Your task to perform on an android device: turn on sleep mode Image 0: 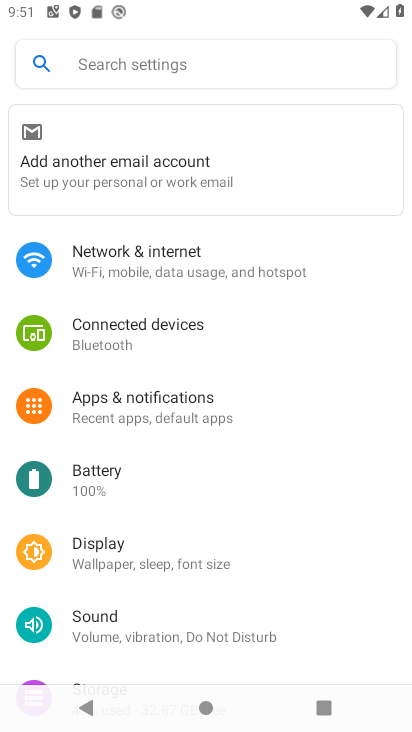
Step 0: press home button
Your task to perform on an android device: turn on sleep mode Image 1: 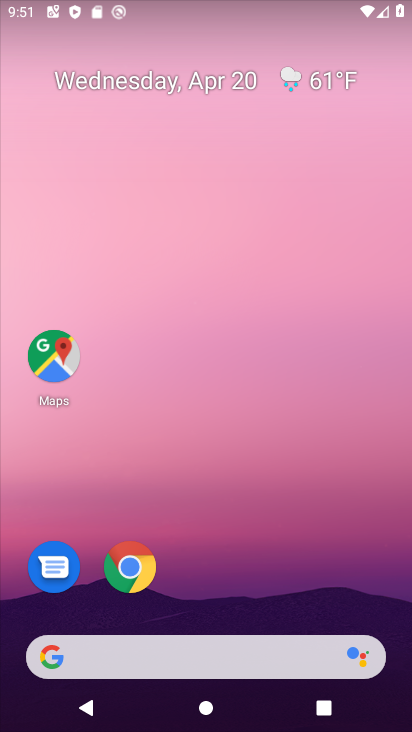
Step 1: drag from (226, 593) to (189, 171)
Your task to perform on an android device: turn on sleep mode Image 2: 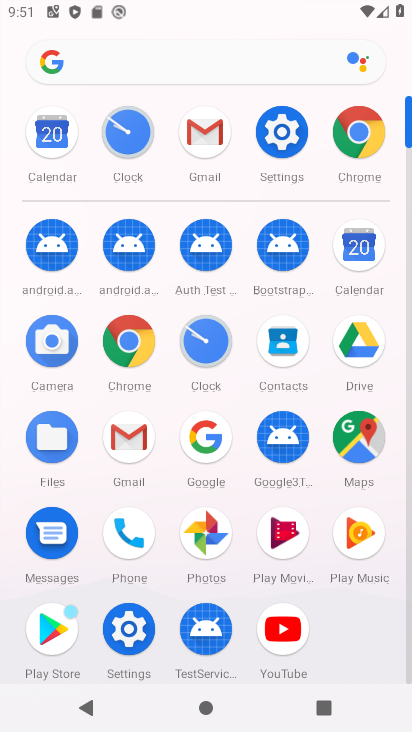
Step 2: click (275, 127)
Your task to perform on an android device: turn on sleep mode Image 3: 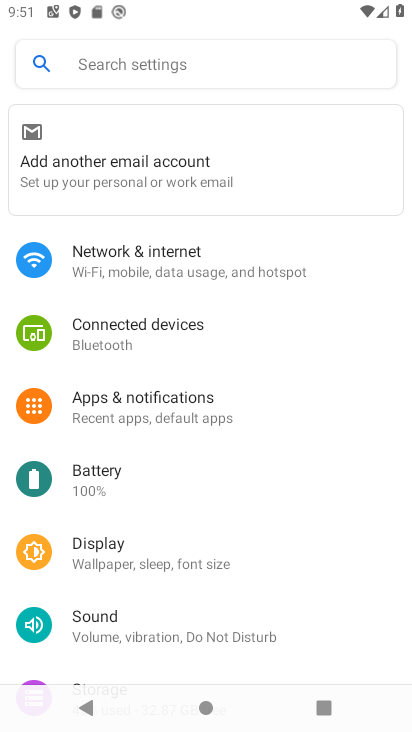
Step 3: click (109, 563)
Your task to perform on an android device: turn on sleep mode Image 4: 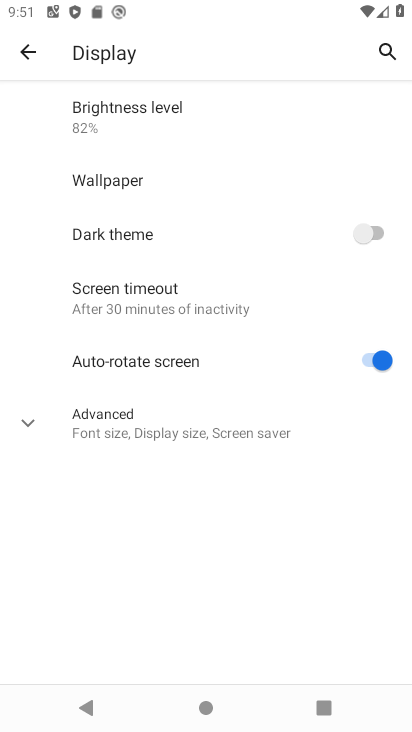
Step 4: click (126, 298)
Your task to perform on an android device: turn on sleep mode Image 5: 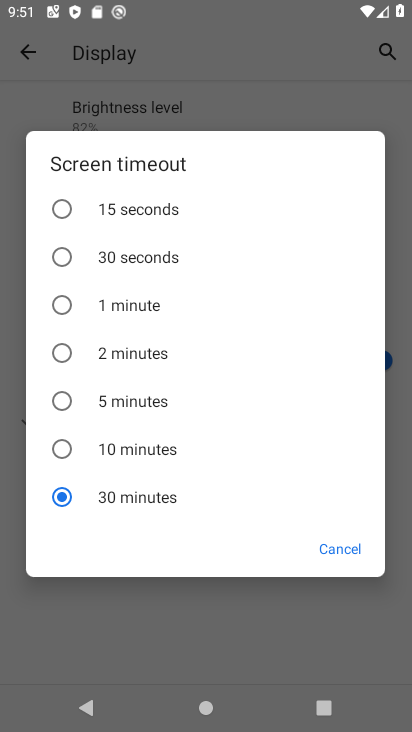
Step 5: click (120, 260)
Your task to perform on an android device: turn on sleep mode Image 6: 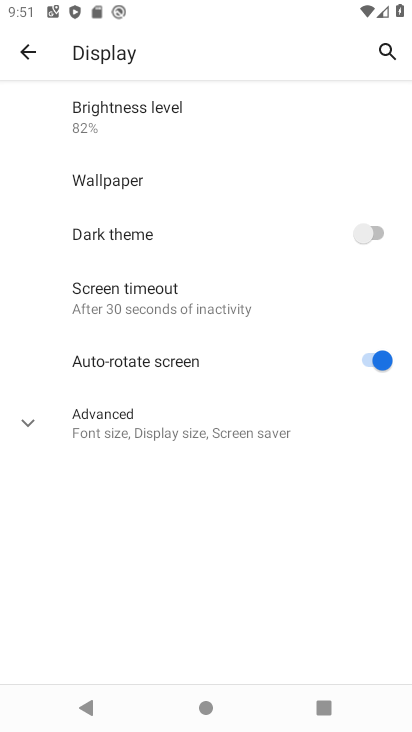
Step 6: task complete